Your task to perform on an android device: turn off airplane mode Image 0: 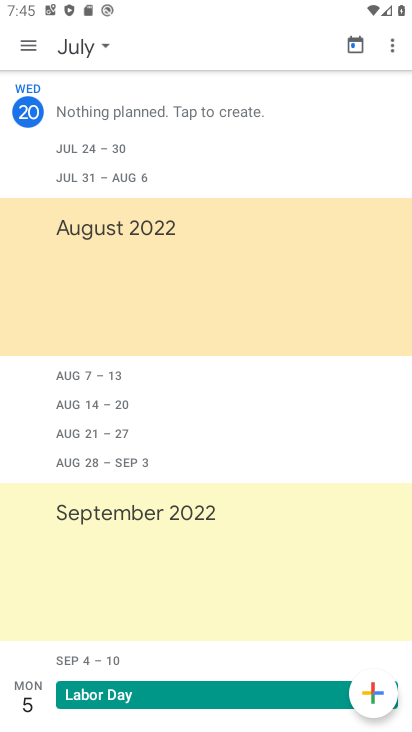
Step 0: press home button
Your task to perform on an android device: turn off airplane mode Image 1: 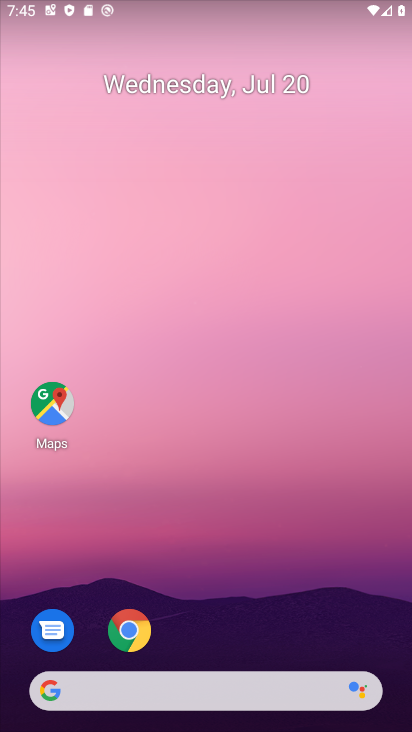
Step 1: drag from (254, 671) to (249, 216)
Your task to perform on an android device: turn off airplane mode Image 2: 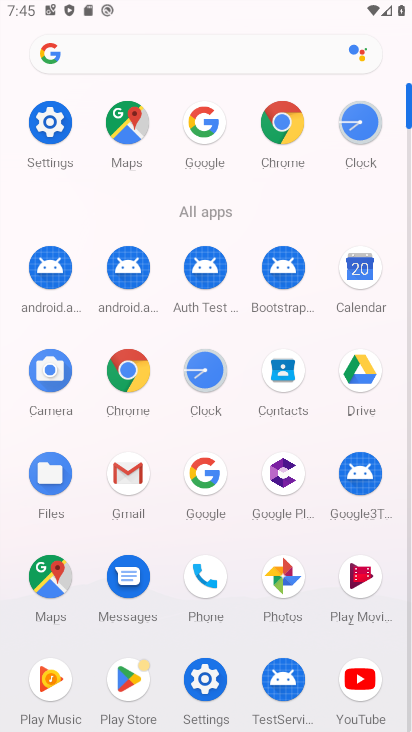
Step 2: click (54, 142)
Your task to perform on an android device: turn off airplane mode Image 3: 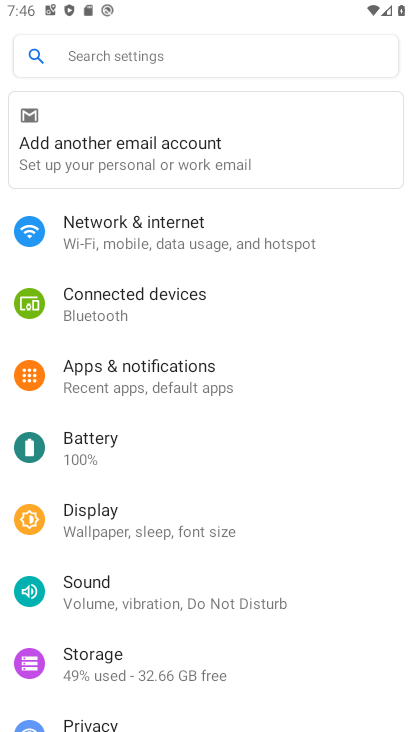
Step 3: click (184, 240)
Your task to perform on an android device: turn off airplane mode Image 4: 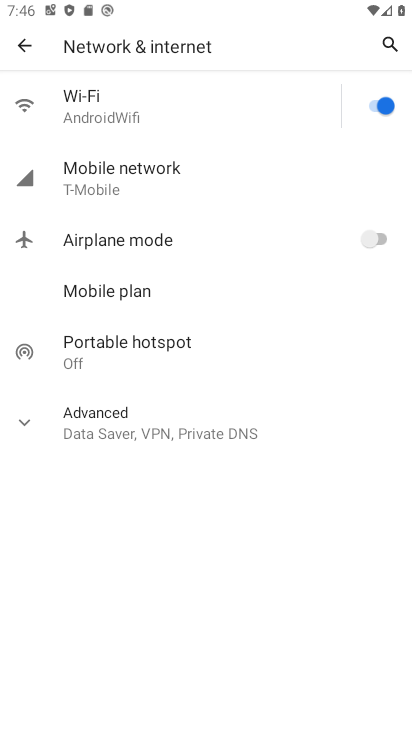
Step 4: task complete